Your task to perform on an android device: Search for "dell xps" on costco.com, select the first entry, add it to the cart, then select checkout. Image 0: 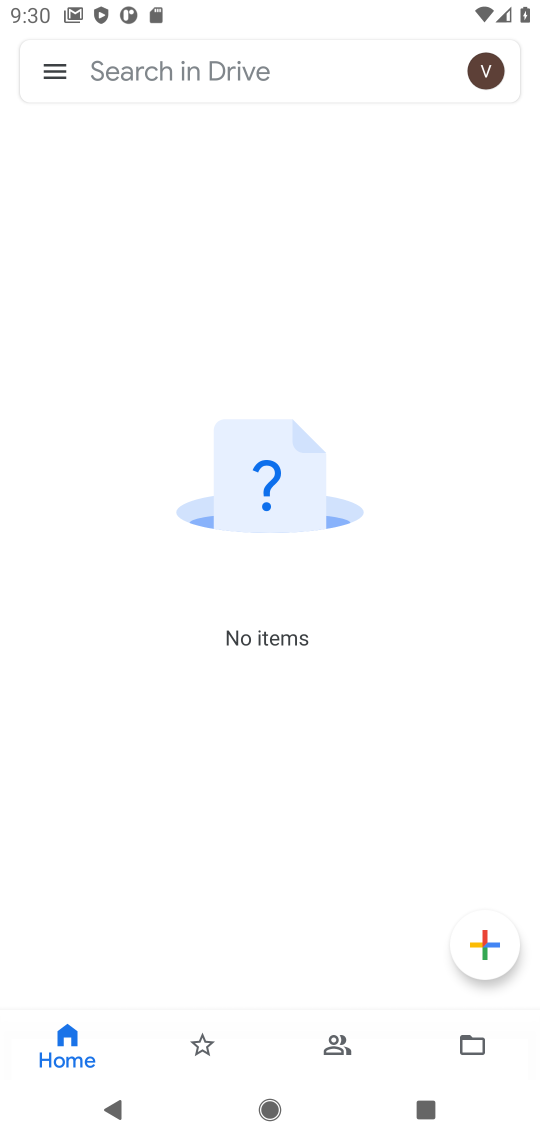
Step 0: press home button
Your task to perform on an android device: Search for "dell xps" on costco.com, select the first entry, add it to the cart, then select checkout. Image 1: 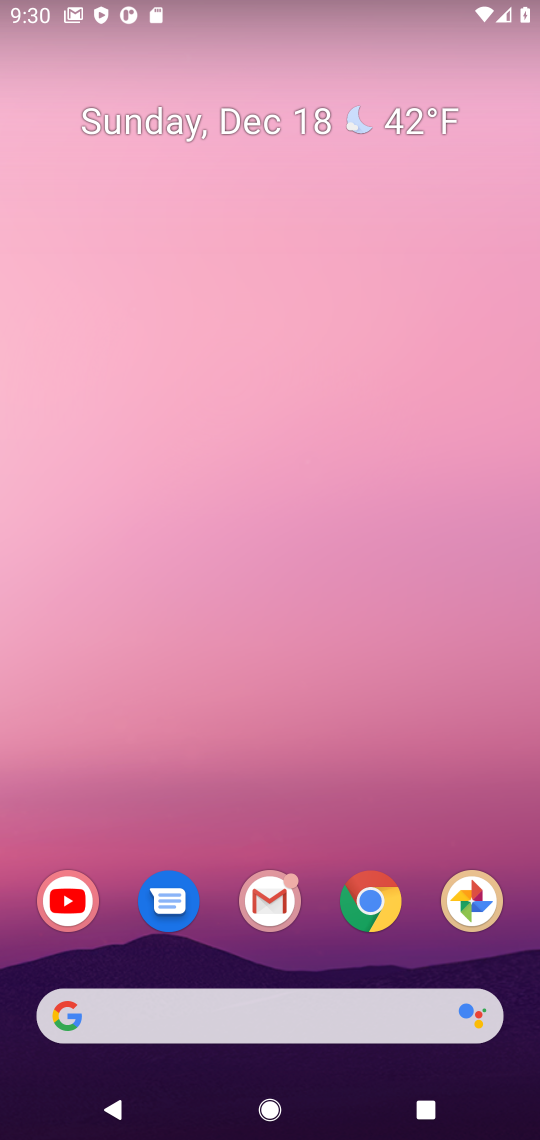
Step 1: click (368, 923)
Your task to perform on an android device: Search for "dell xps" on costco.com, select the first entry, add it to the cart, then select checkout. Image 2: 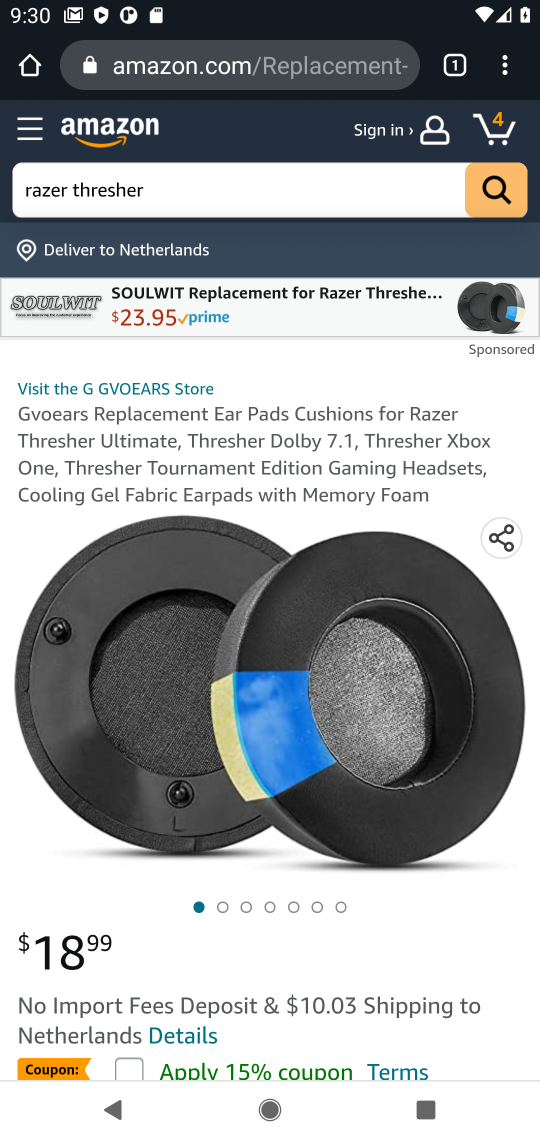
Step 2: click (232, 46)
Your task to perform on an android device: Search for "dell xps" on costco.com, select the first entry, add it to the cart, then select checkout. Image 3: 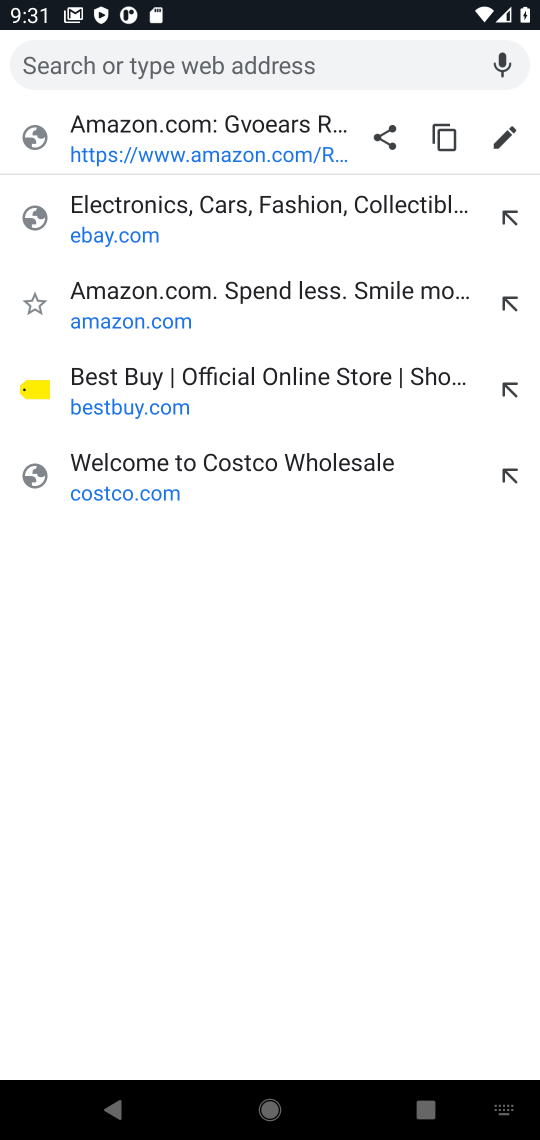
Step 3: click (290, 456)
Your task to perform on an android device: Search for "dell xps" on costco.com, select the first entry, add it to the cart, then select checkout. Image 4: 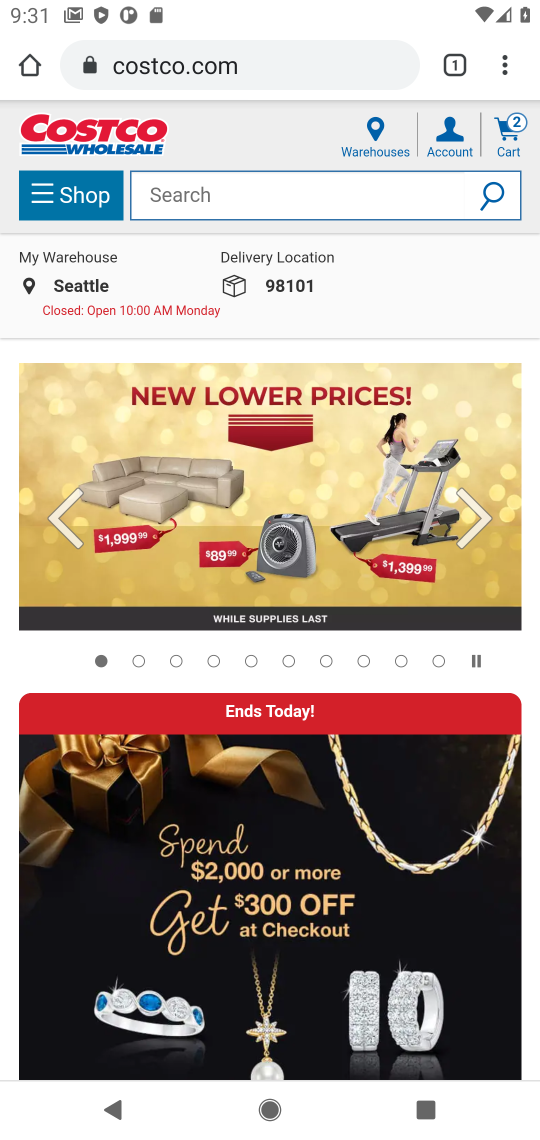
Step 4: click (163, 203)
Your task to perform on an android device: Search for "dell xps" on costco.com, select the first entry, add it to the cart, then select checkout. Image 5: 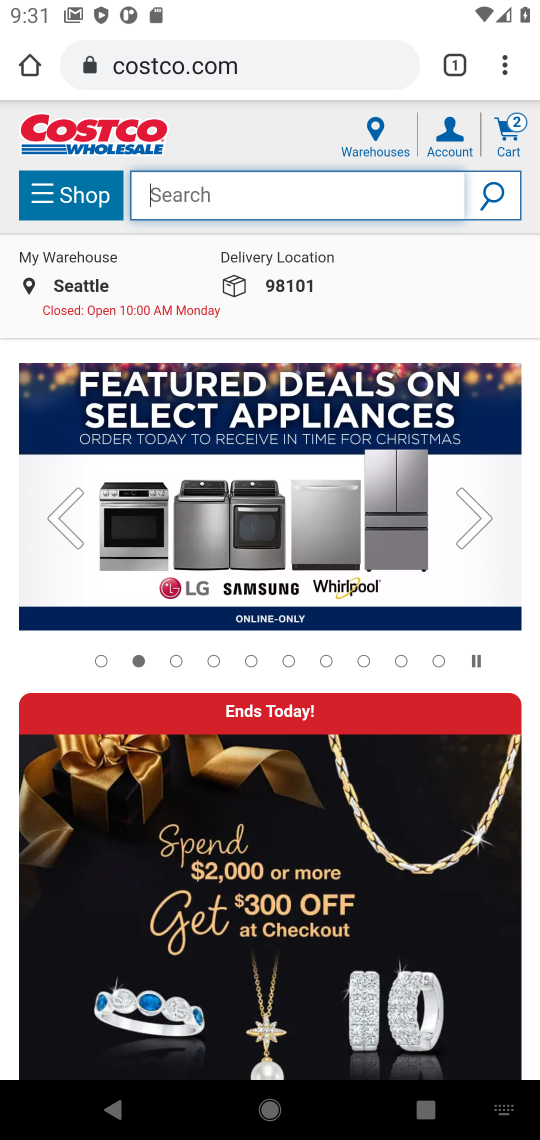
Step 5: type "dell xps"
Your task to perform on an android device: Search for "dell xps" on costco.com, select the first entry, add it to the cart, then select checkout. Image 6: 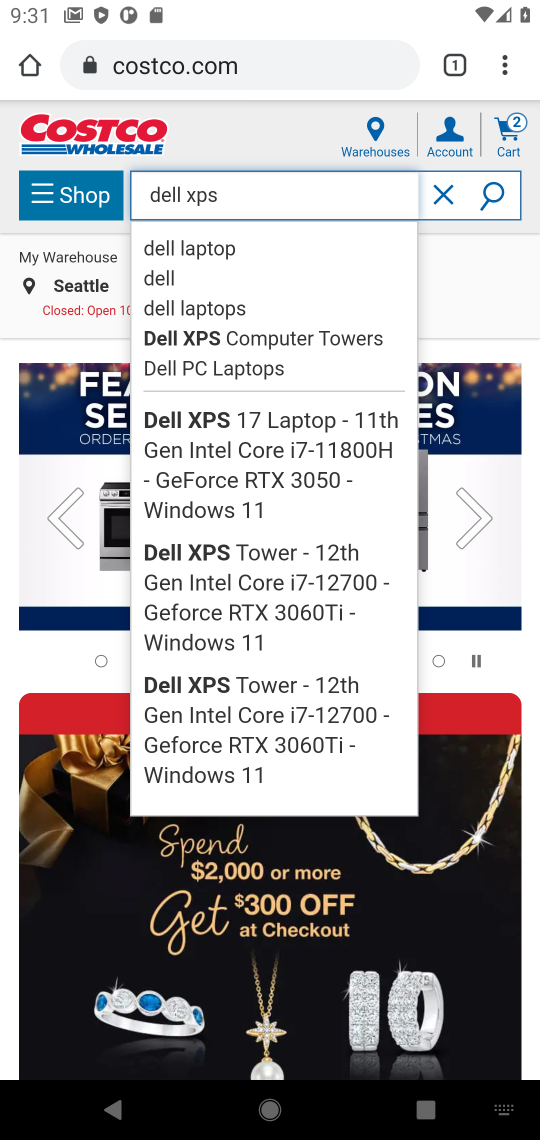
Step 6: click (501, 197)
Your task to perform on an android device: Search for "dell xps" on costco.com, select the first entry, add it to the cart, then select checkout. Image 7: 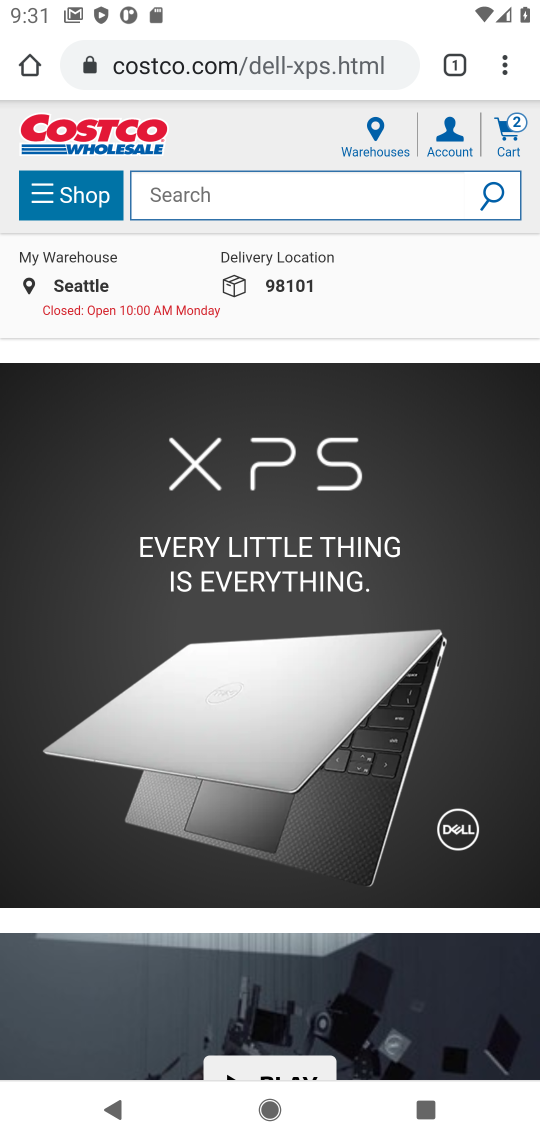
Step 7: task complete